Your task to perform on an android device: Open maps Image 0: 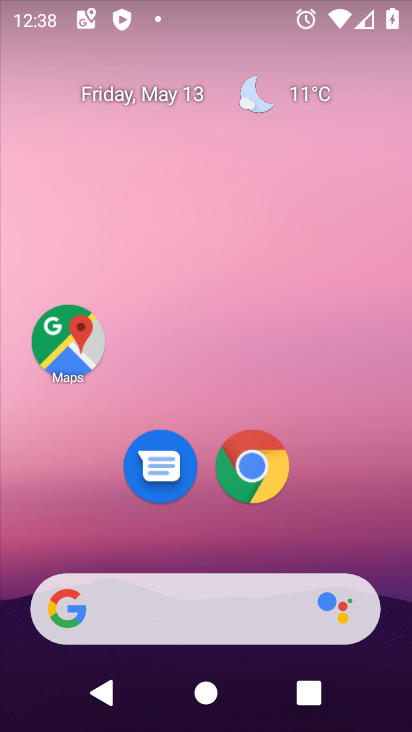
Step 0: click (58, 326)
Your task to perform on an android device: Open maps Image 1: 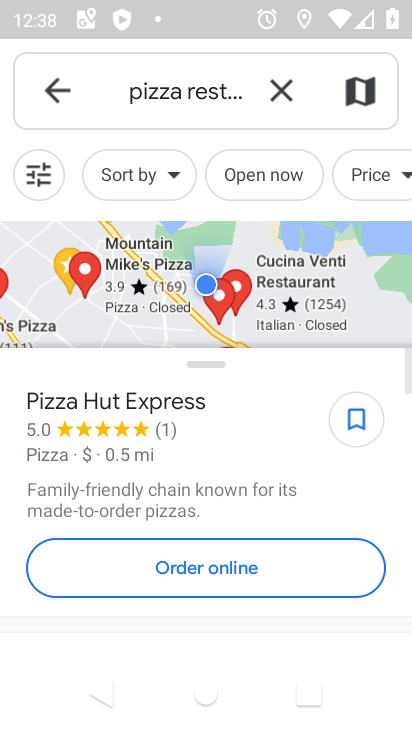
Step 1: click (63, 106)
Your task to perform on an android device: Open maps Image 2: 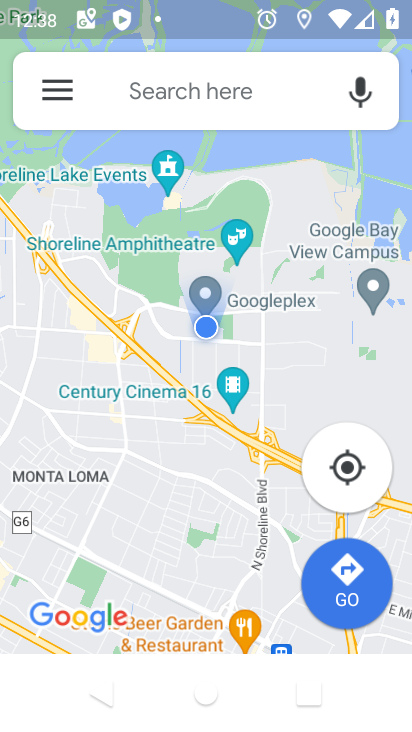
Step 2: task complete